Your task to perform on an android device: turn notification dots on Image 0: 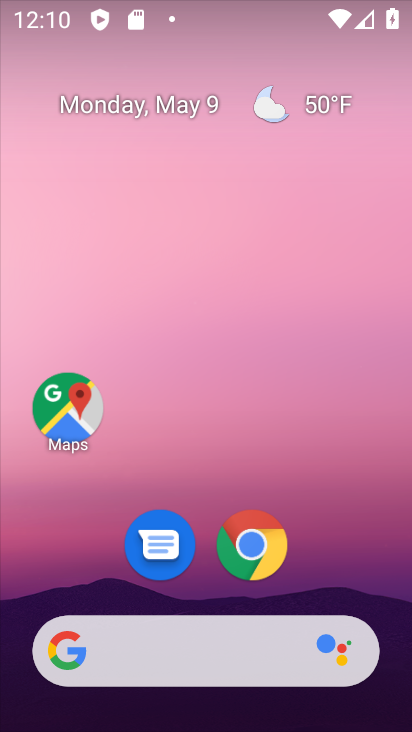
Step 0: drag from (195, 585) to (195, 74)
Your task to perform on an android device: turn notification dots on Image 1: 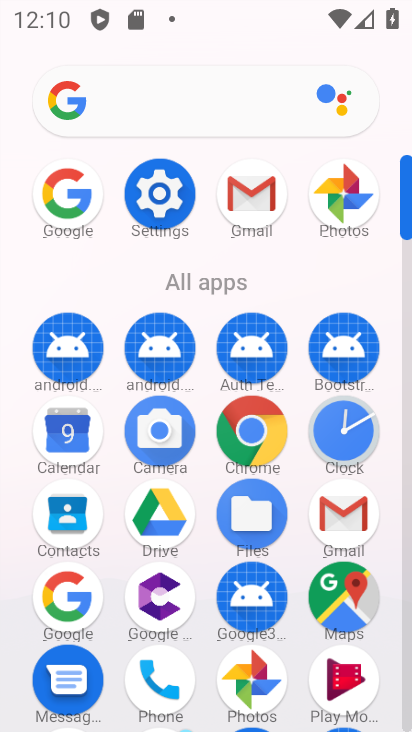
Step 1: click (152, 203)
Your task to perform on an android device: turn notification dots on Image 2: 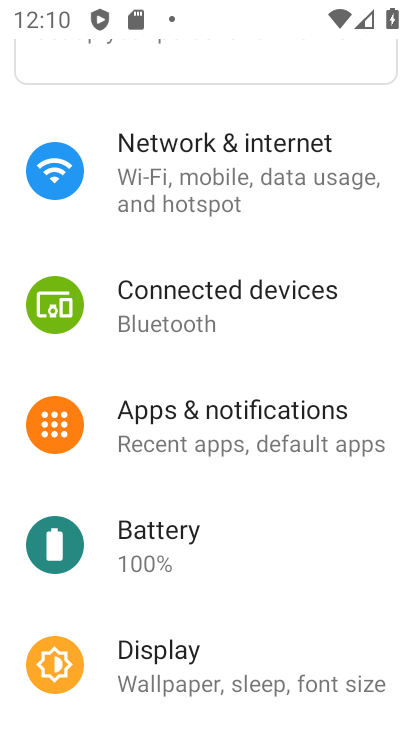
Step 2: click (310, 431)
Your task to perform on an android device: turn notification dots on Image 3: 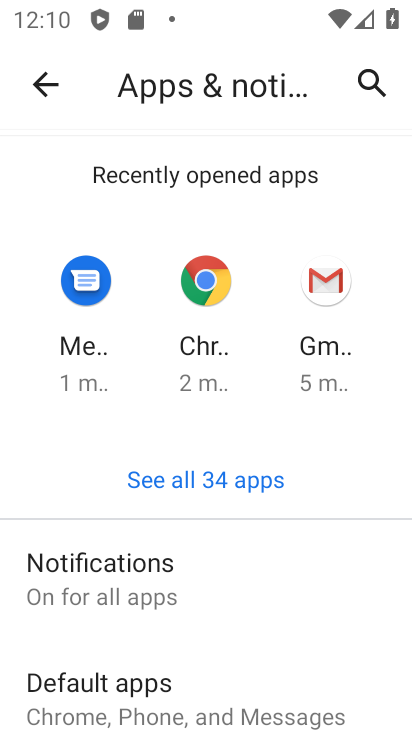
Step 3: click (129, 572)
Your task to perform on an android device: turn notification dots on Image 4: 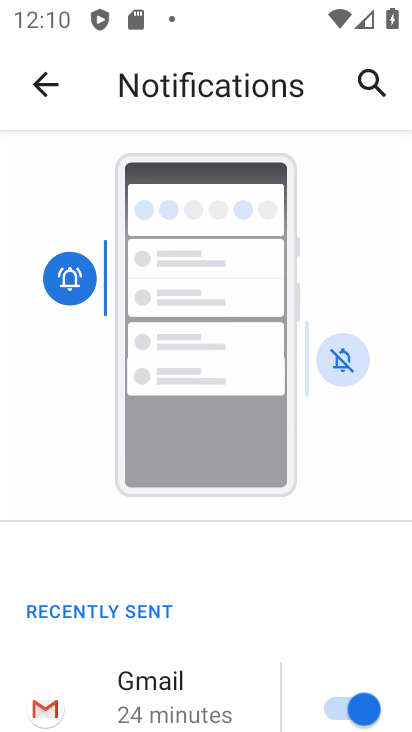
Step 4: drag from (233, 648) to (213, 164)
Your task to perform on an android device: turn notification dots on Image 5: 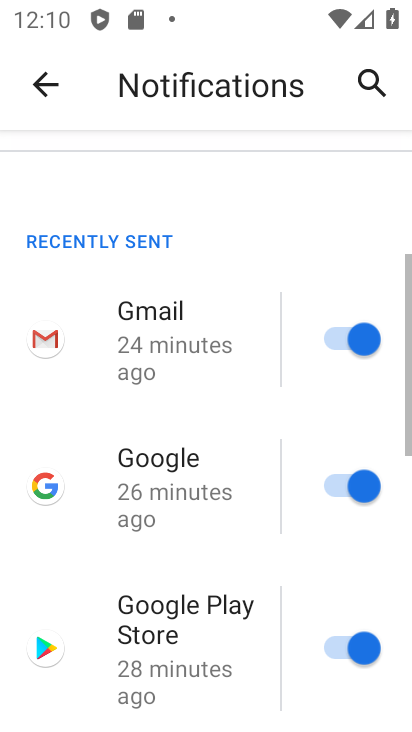
Step 5: drag from (259, 691) to (266, 187)
Your task to perform on an android device: turn notification dots on Image 6: 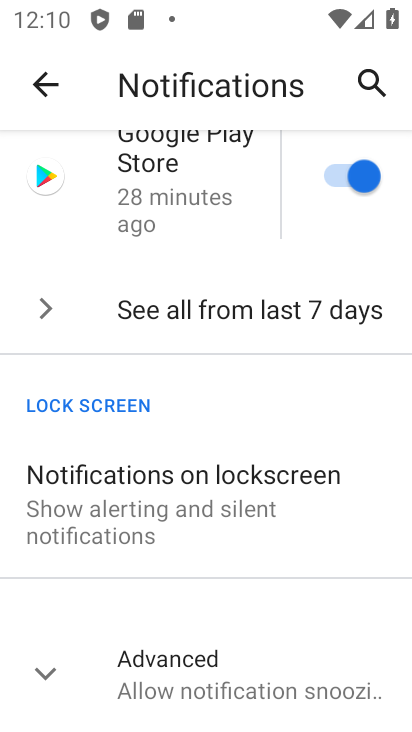
Step 6: drag from (216, 662) to (221, 383)
Your task to perform on an android device: turn notification dots on Image 7: 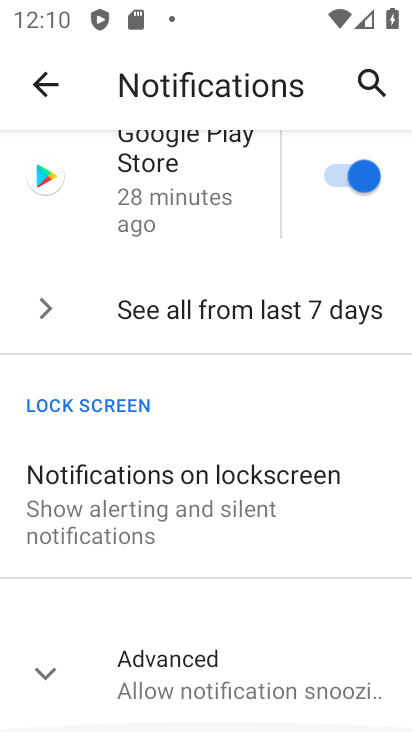
Step 7: click (212, 639)
Your task to perform on an android device: turn notification dots on Image 8: 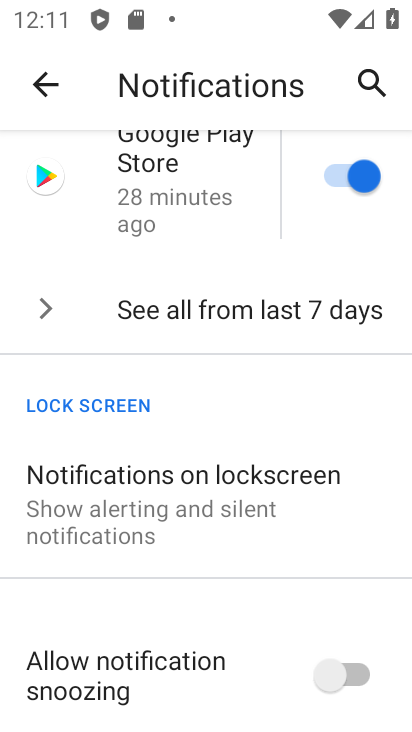
Step 8: task complete